Your task to perform on an android device: all mails in gmail Image 0: 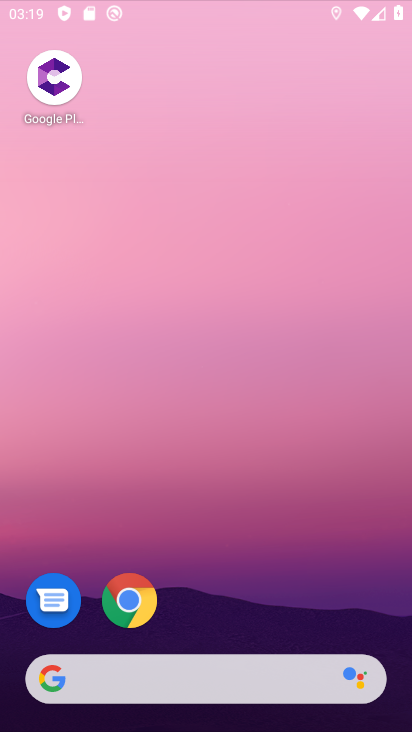
Step 0: click (264, 256)
Your task to perform on an android device: all mails in gmail Image 1: 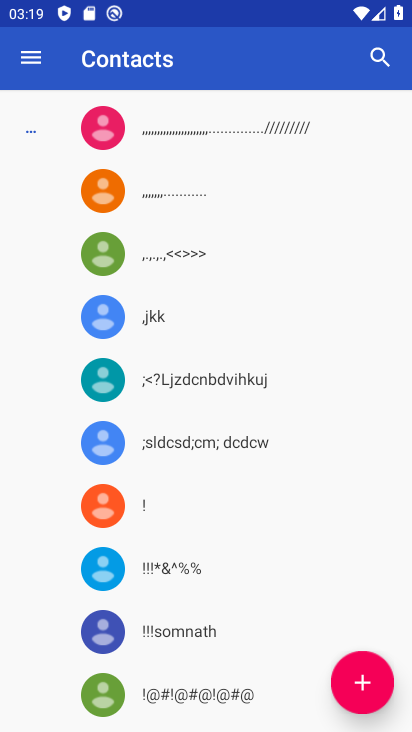
Step 1: press home button
Your task to perform on an android device: all mails in gmail Image 2: 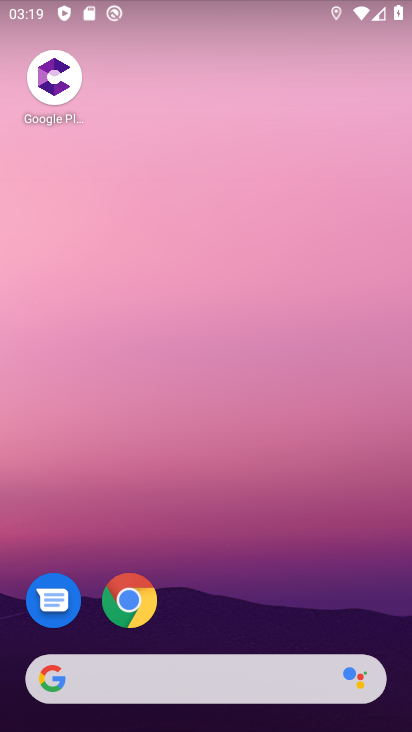
Step 2: drag from (333, 646) to (245, 201)
Your task to perform on an android device: all mails in gmail Image 3: 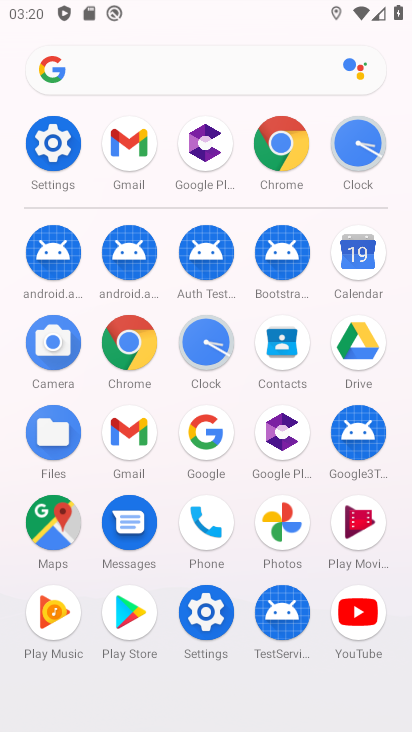
Step 3: click (126, 145)
Your task to perform on an android device: all mails in gmail Image 4: 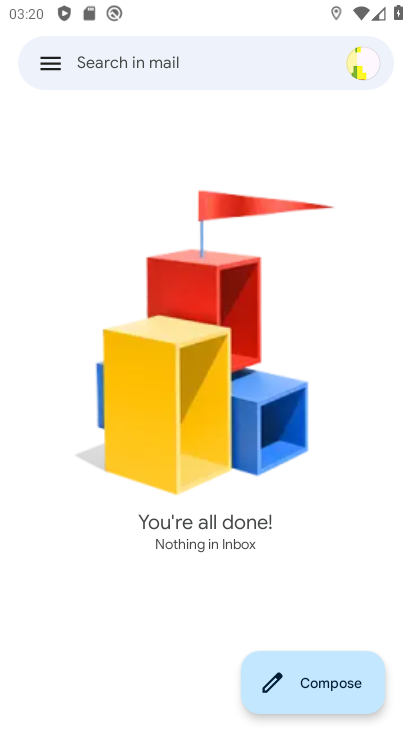
Step 4: click (56, 74)
Your task to perform on an android device: all mails in gmail Image 5: 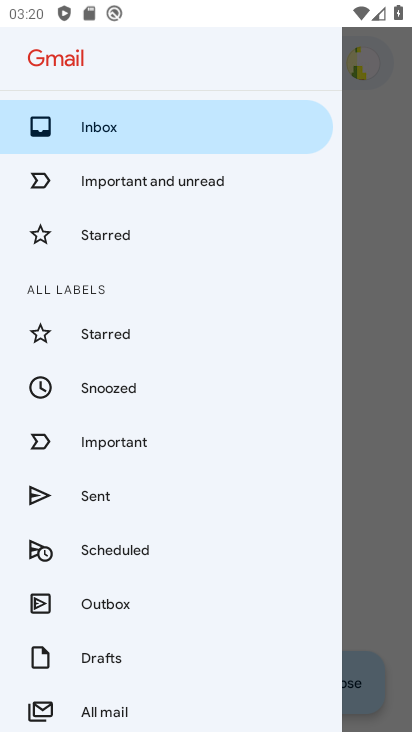
Step 5: click (166, 703)
Your task to perform on an android device: all mails in gmail Image 6: 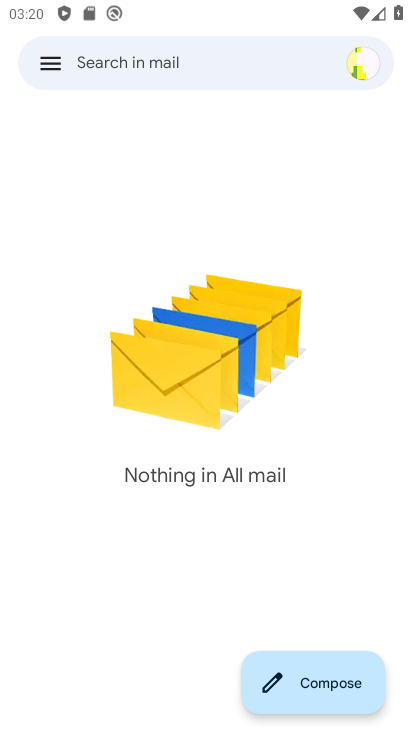
Step 6: task complete